Your task to perform on an android device: change the clock style Image 0: 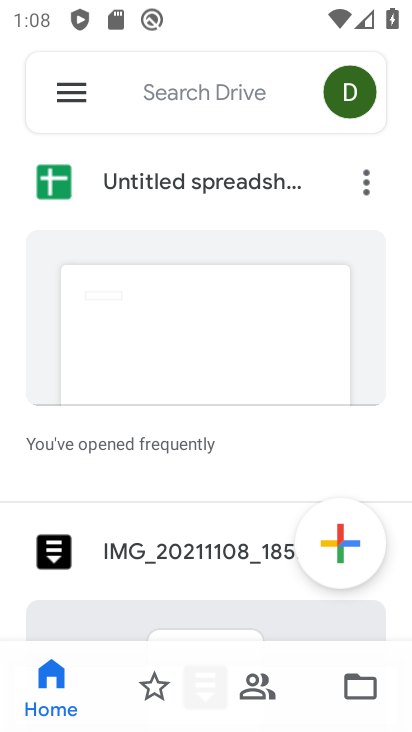
Step 0: press home button
Your task to perform on an android device: change the clock style Image 1: 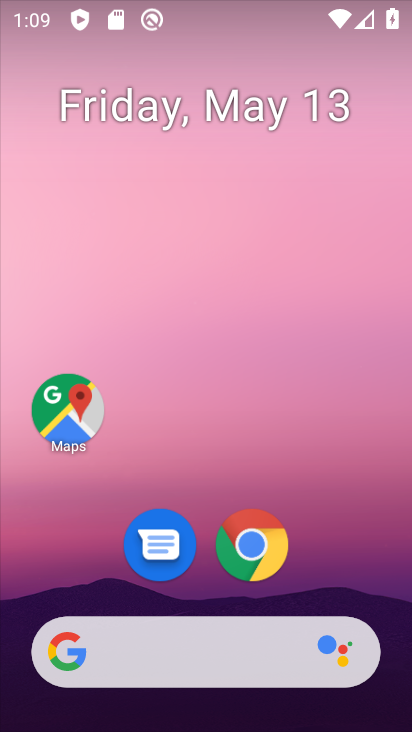
Step 1: drag from (361, 538) to (231, 66)
Your task to perform on an android device: change the clock style Image 2: 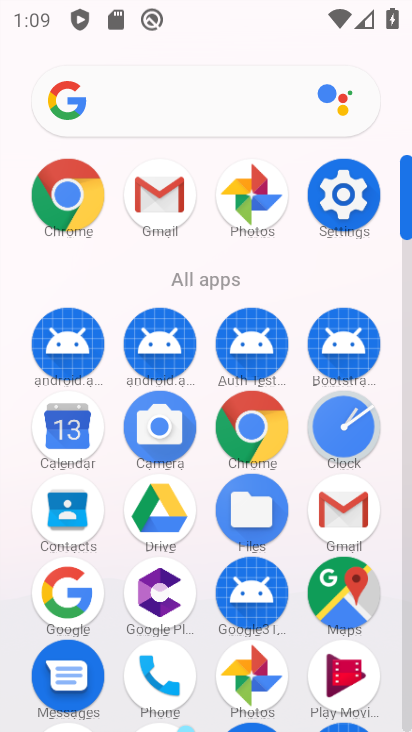
Step 2: click (342, 449)
Your task to perform on an android device: change the clock style Image 3: 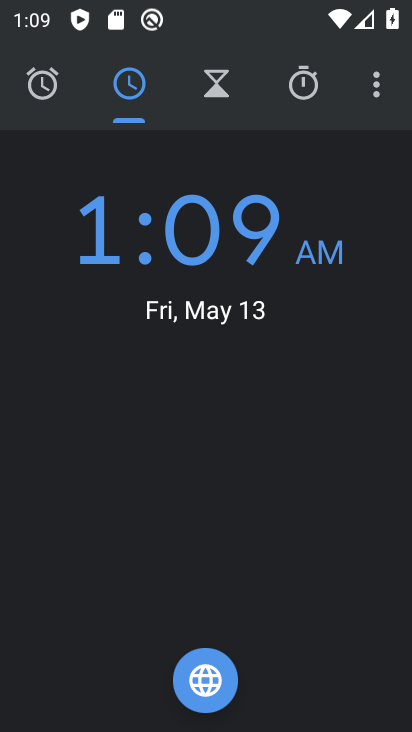
Step 3: click (375, 100)
Your task to perform on an android device: change the clock style Image 4: 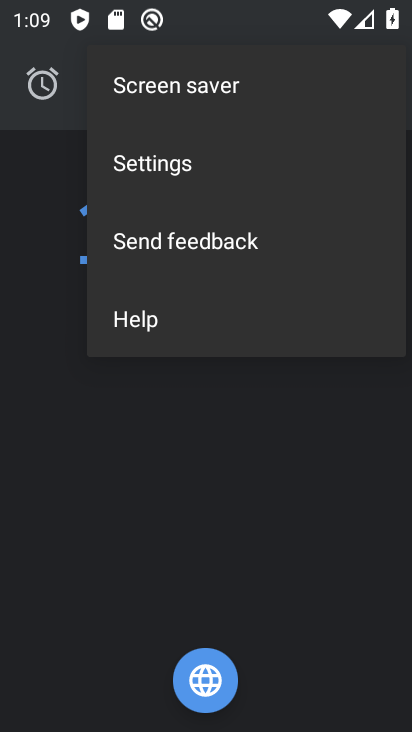
Step 4: click (239, 169)
Your task to perform on an android device: change the clock style Image 5: 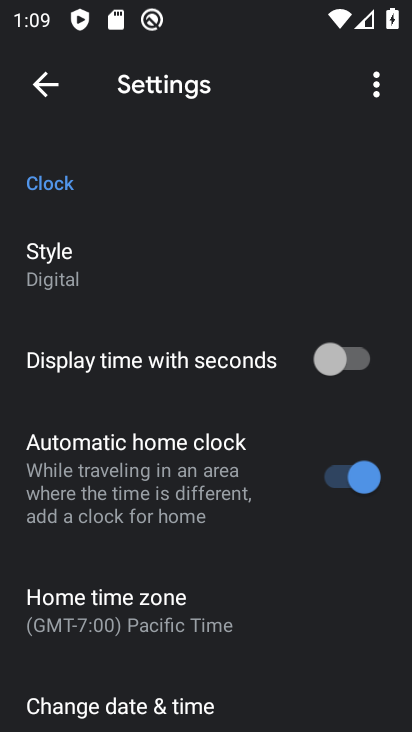
Step 5: click (234, 259)
Your task to perform on an android device: change the clock style Image 6: 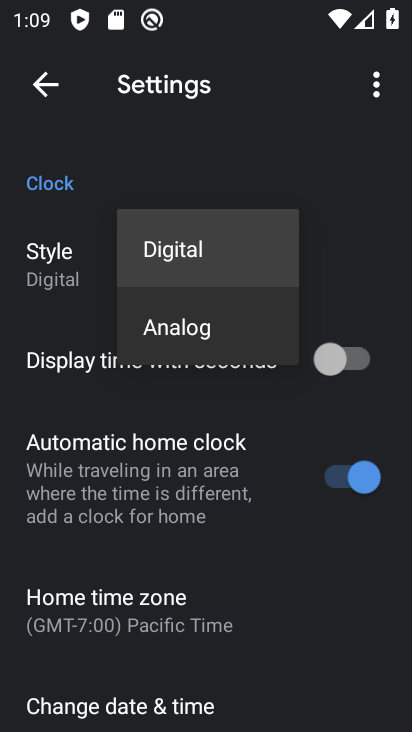
Step 6: click (186, 340)
Your task to perform on an android device: change the clock style Image 7: 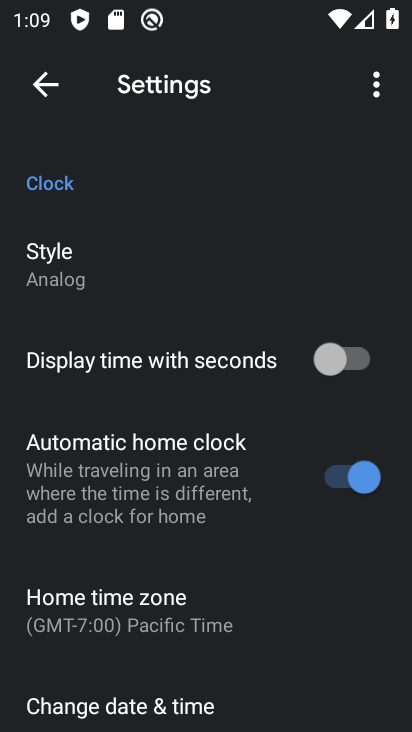
Step 7: task complete